Your task to perform on an android device: change text size in settings app Image 0: 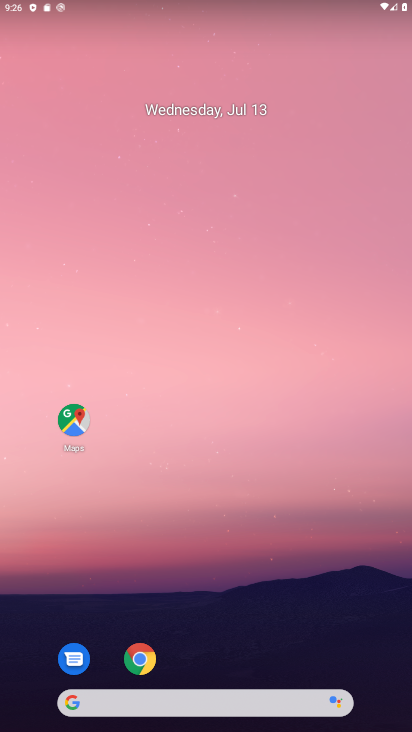
Step 0: drag from (217, 552) to (167, 178)
Your task to perform on an android device: change text size in settings app Image 1: 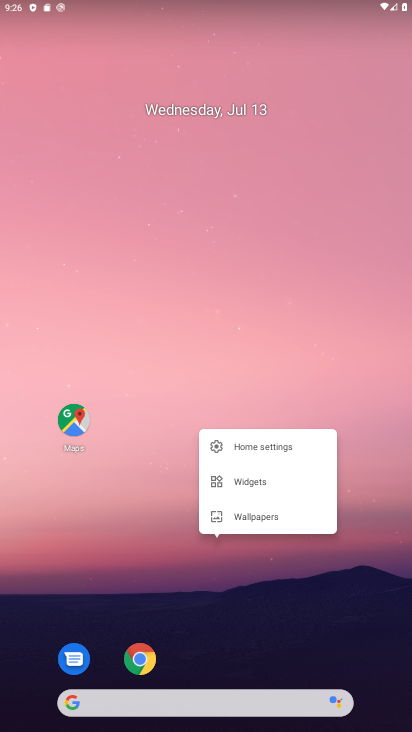
Step 1: click (207, 351)
Your task to perform on an android device: change text size in settings app Image 2: 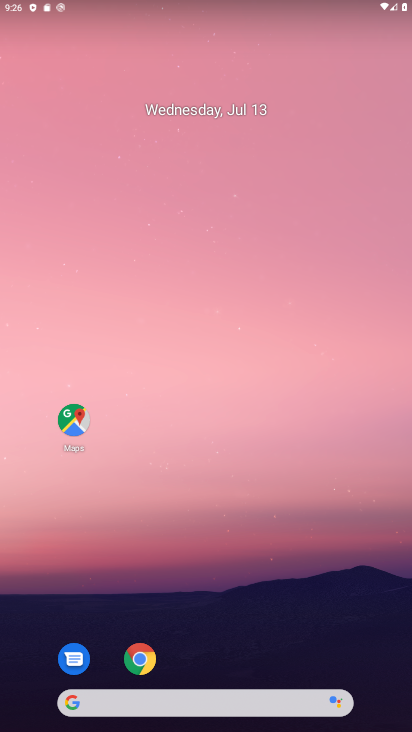
Step 2: drag from (268, 621) to (224, 161)
Your task to perform on an android device: change text size in settings app Image 3: 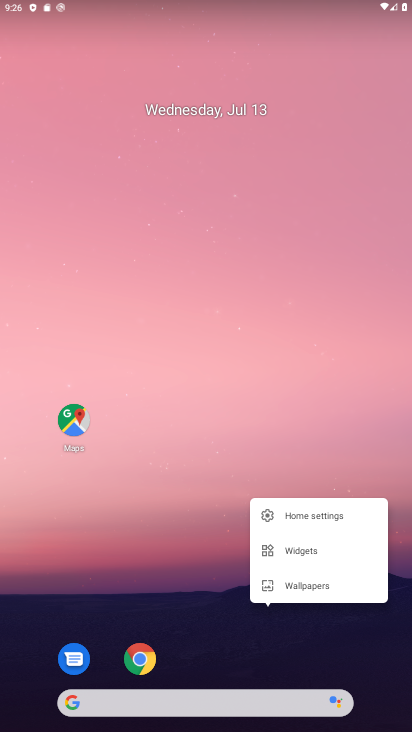
Step 3: click (147, 441)
Your task to perform on an android device: change text size in settings app Image 4: 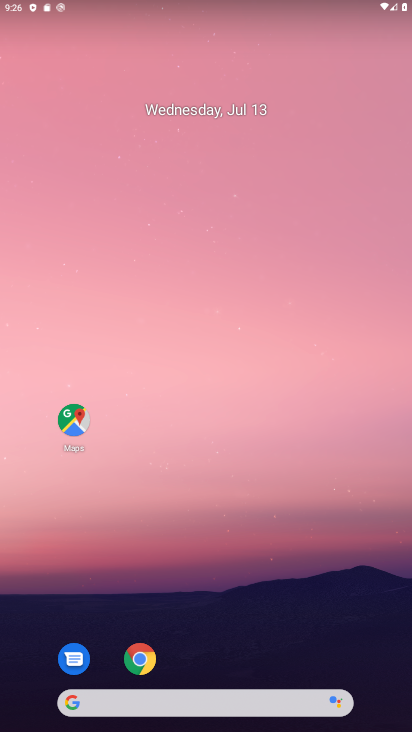
Step 4: drag from (251, 601) to (195, 60)
Your task to perform on an android device: change text size in settings app Image 5: 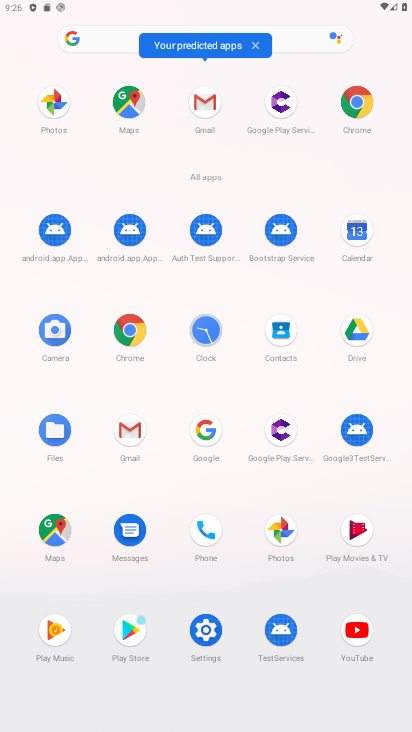
Step 5: click (205, 630)
Your task to perform on an android device: change text size in settings app Image 6: 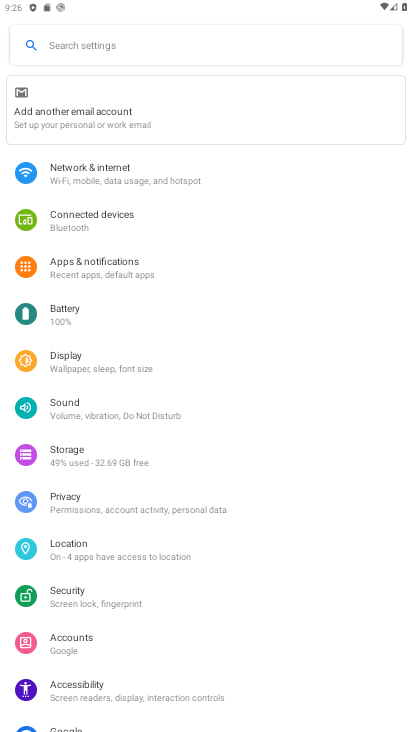
Step 6: click (59, 352)
Your task to perform on an android device: change text size in settings app Image 7: 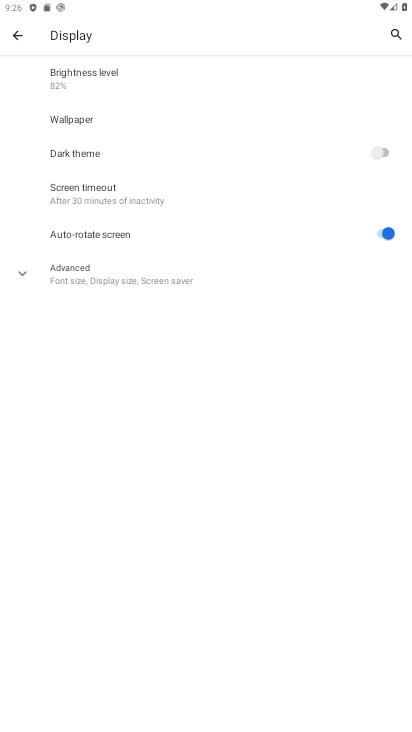
Step 7: click (31, 271)
Your task to perform on an android device: change text size in settings app Image 8: 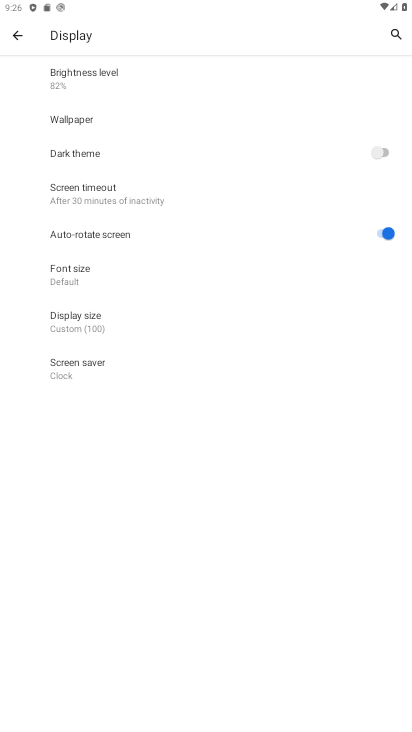
Step 8: click (70, 270)
Your task to perform on an android device: change text size in settings app Image 9: 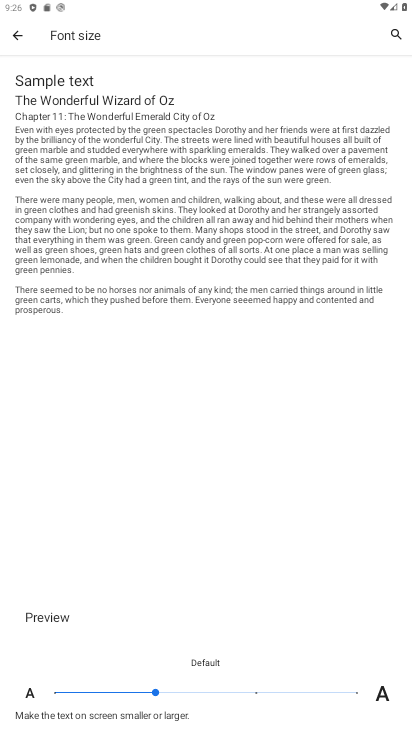
Step 9: click (238, 685)
Your task to perform on an android device: change text size in settings app Image 10: 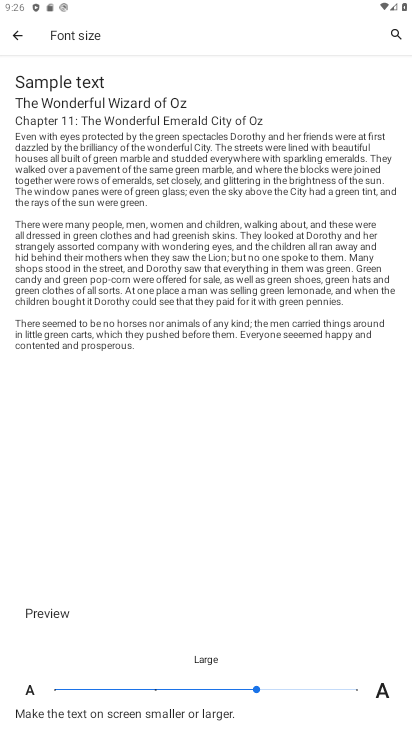
Step 10: task complete